Your task to perform on an android device: open app "Spotify" (install if not already installed) and go to login screen Image 0: 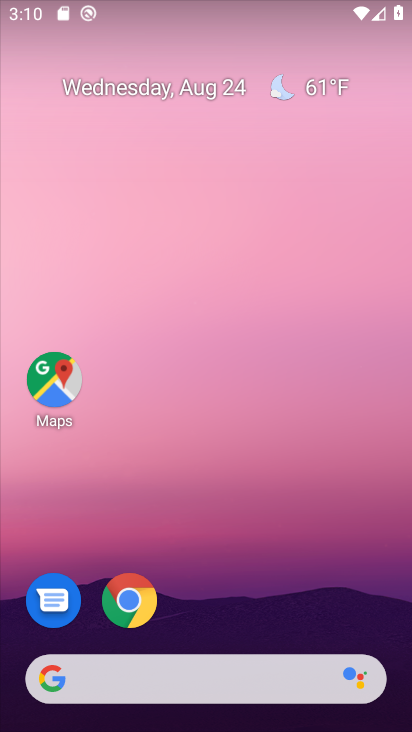
Step 0: drag from (274, 485) to (370, 2)
Your task to perform on an android device: open app "Spotify" (install if not already installed) and go to login screen Image 1: 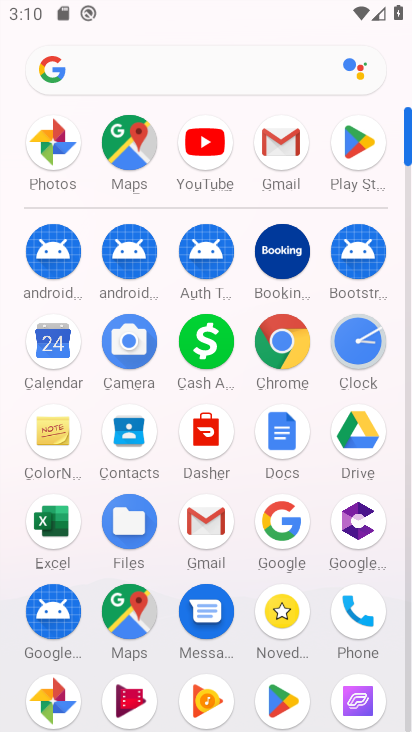
Step 1: click (349, 127)
Your task to perform on an android device: open app "Spotify" (install if not already installed) and go to login screen Image 2: 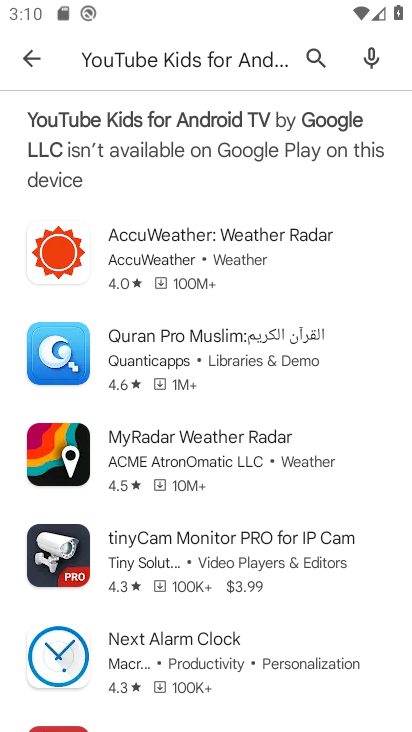
Step 2: click (315, 64)
Your task to perform on an android device: open app "Spotify" (install if not already installed) and go to login screen Image 3: 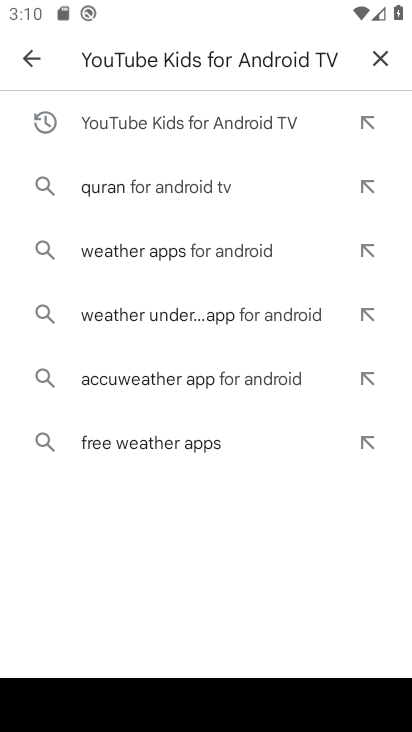
Step 3: click (379, 54)
Your task to perform on an android device: open app "Spotify" (install if not already installed) and go to login screen Image 4: 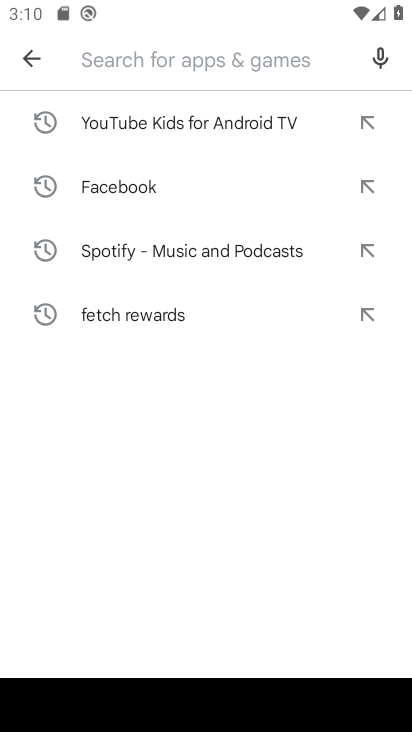
Step 4: type "spotify"
Your task to perform on an android device: open app "Spotify" (install if not already installed) and go to login screen Image 5: 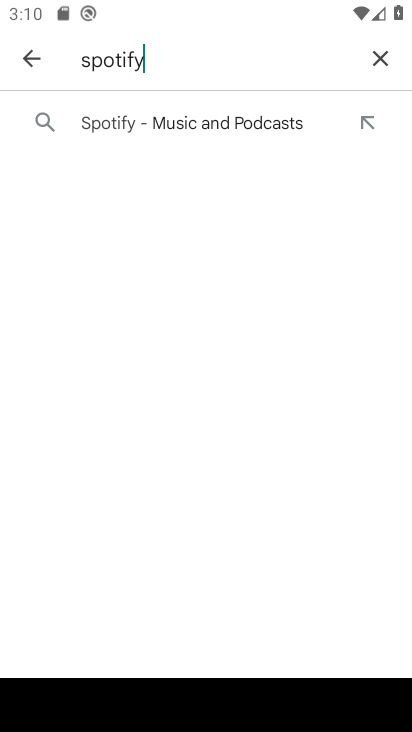
Step 5: click (193, 123)
Your task to perform on an android device: open app "Spotify" (install if not already installed) and go to login screen Image 6: 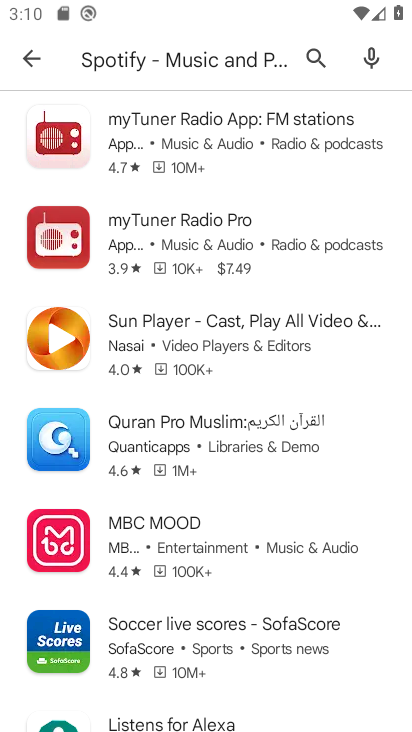
Step 6: task complete